Your task to perform on an android device: turn on priority inbox in the gmail app Image 0: 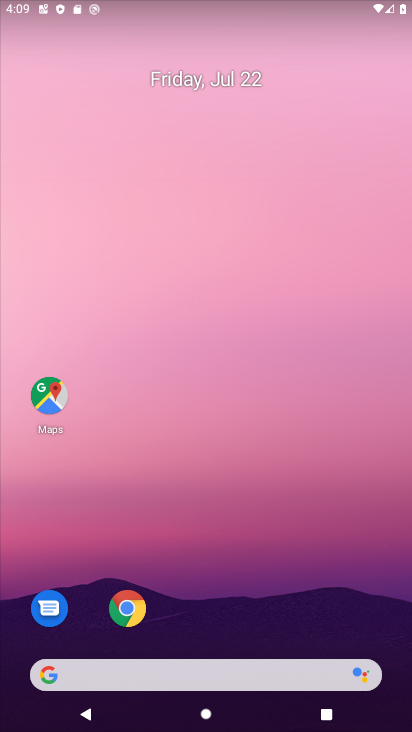
Step 0: drag from (229, 724) to (240, 46)
Your task to perform on an android device: turn on priority inbox in the gmail app Image 1: 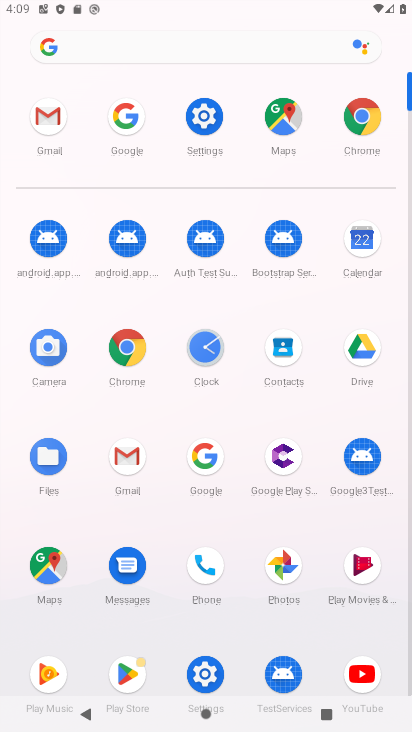
Step 1: click (125, 458)
Your task to perform on an android device: turn on priority inbox in the gmail app Image 2: 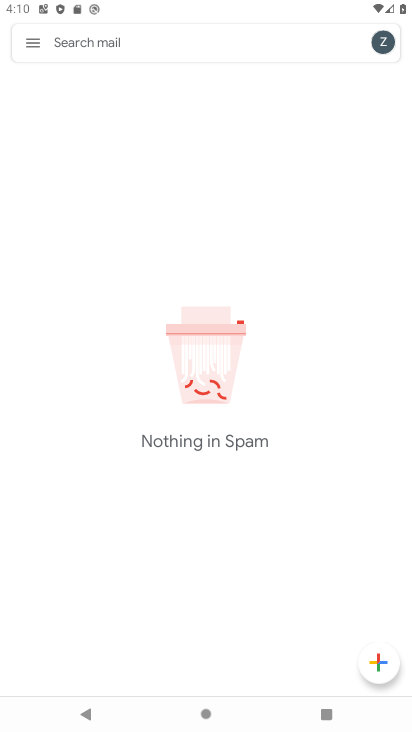
Step 2: click (32, 47)
Your task to perform on an android device: turn on priority inbox in the gmail app Image 3: 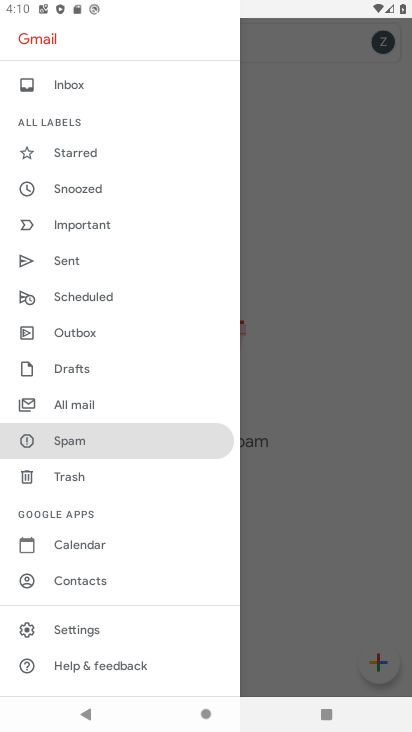
Step 3: click (75, 627)
Your task to perform on an android device: turn on priority inbox in the gmail app Image 4: 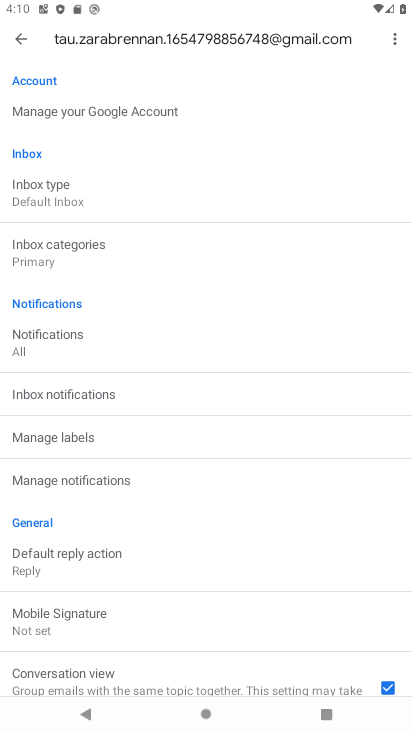
Step 4: drag from (73, 187) to (86, 577)
Your task to perform on an android device: turn on priority inbox in the gmail app Image 5: 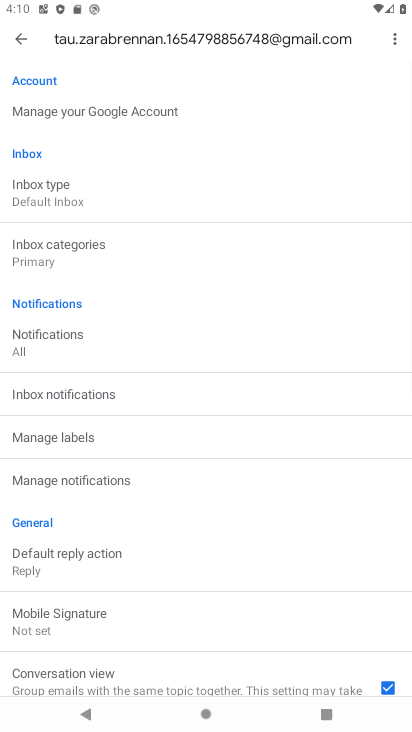
Step 5: click (26, 194)
Your task to perform on an android device: turn on priority inbox in the gmail app Image 6: 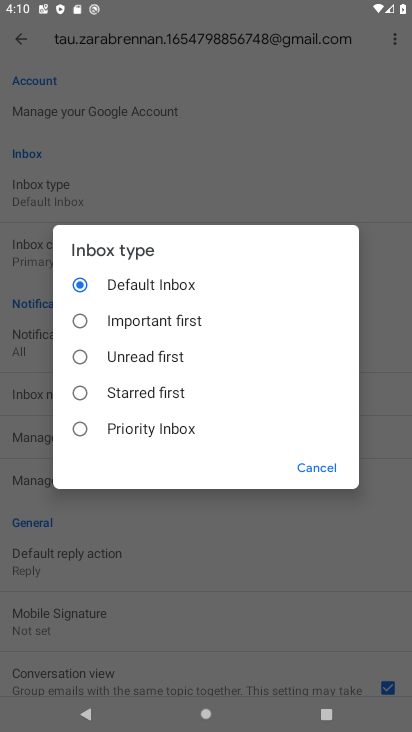
Step 6: click (74, 430)
Your task to perform on an android device: turn on priority inbox in the gmail app Image 7: 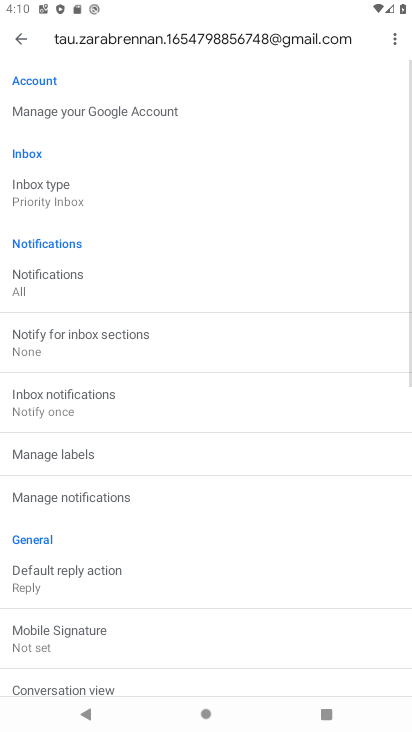
Step 7: task complete